Your task to perform on an android device: Open maps Image 0: 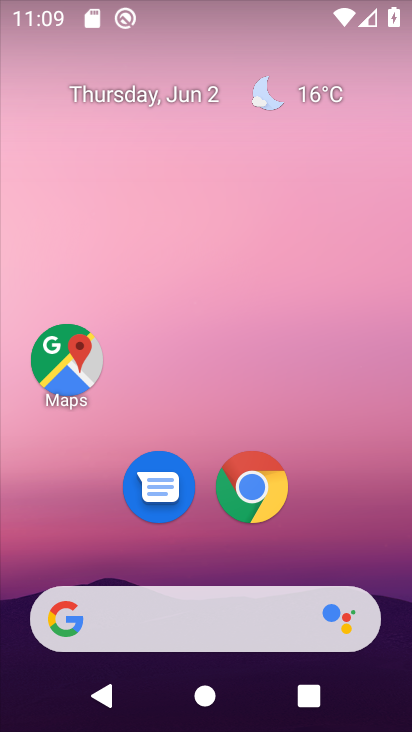
Step 0: click (66, 365)
Your task to perform on an android device: Open maps Image 1: 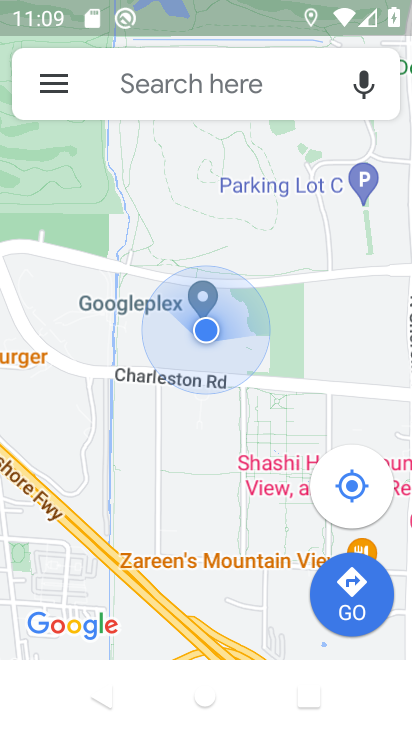
Step 1: task complete